Your task to perform on an android device: Clear the shopping cart on target.com. Image 0: 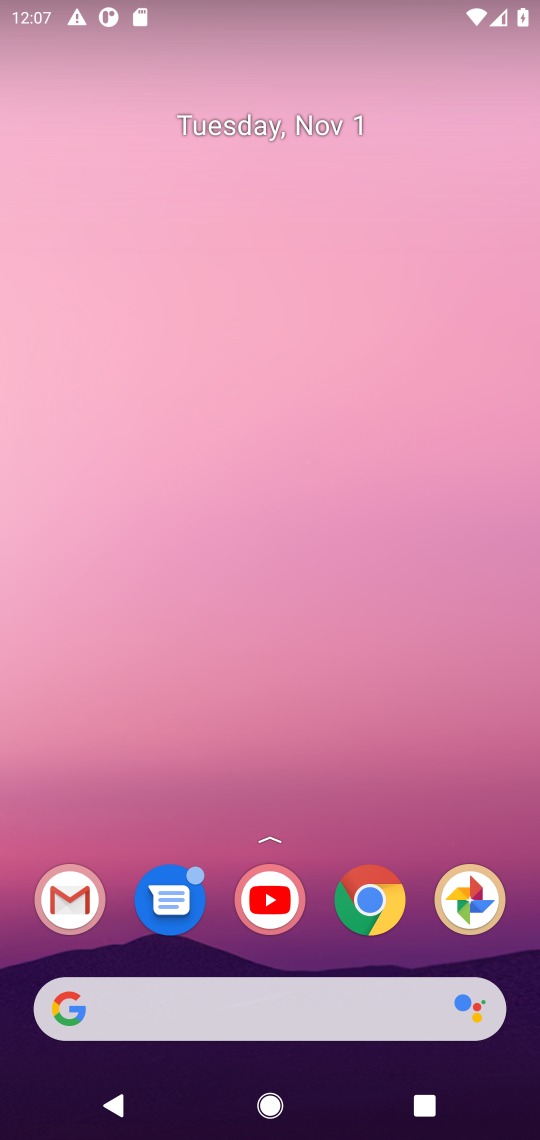
Step 0: click (376, 914)
Your task to perform on an android device: Clear the shopping cart on target.com. Image 1: 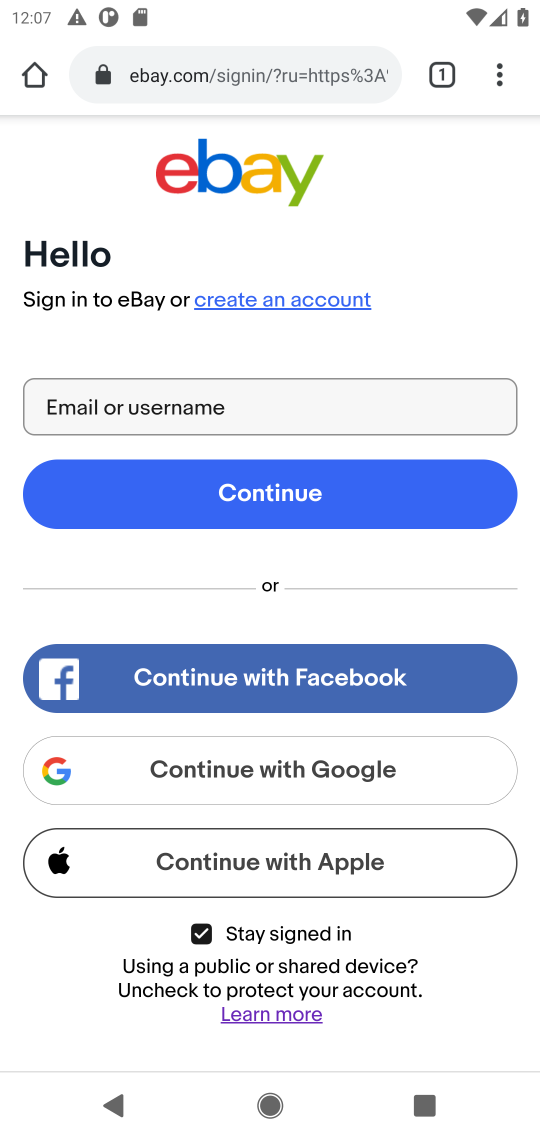
Step 1: click (251, 85)
Your task to perform on an android device: Clear the shopping cart on target.com. Image 2: 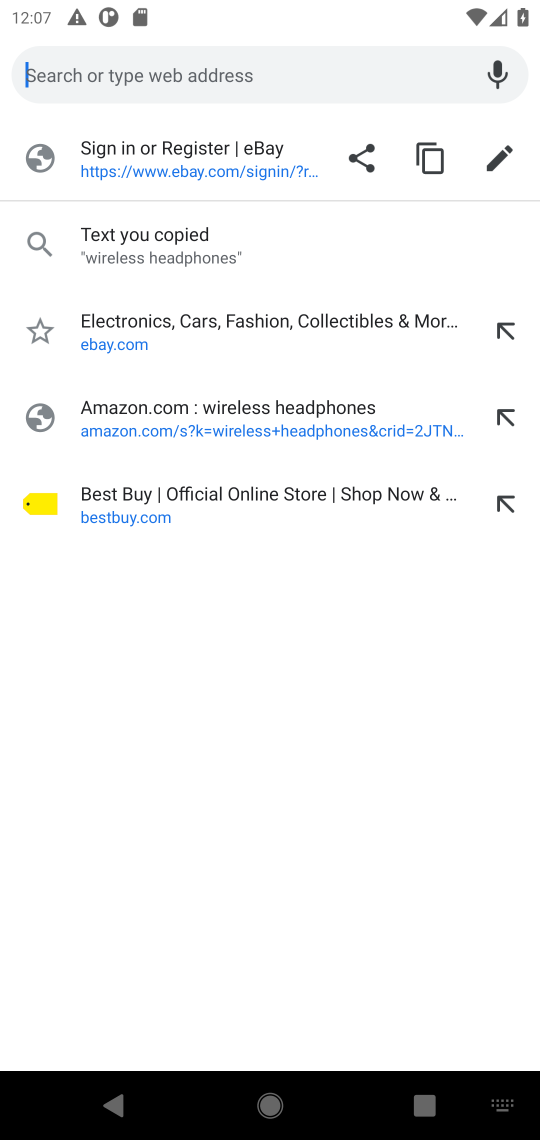
Step 2: type "target.com"
Your task to perform on an android device: Clear the shopping cart on target.com. Image 3: 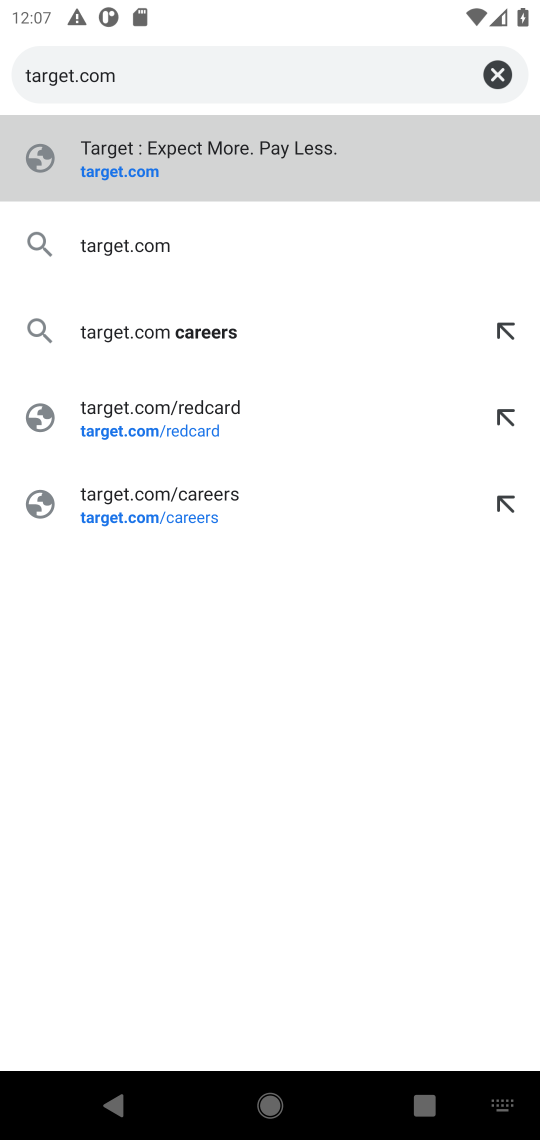
Step 3: press enter
Your task to perform on an android device: Clear the shopping cart on target.com. Image 4: 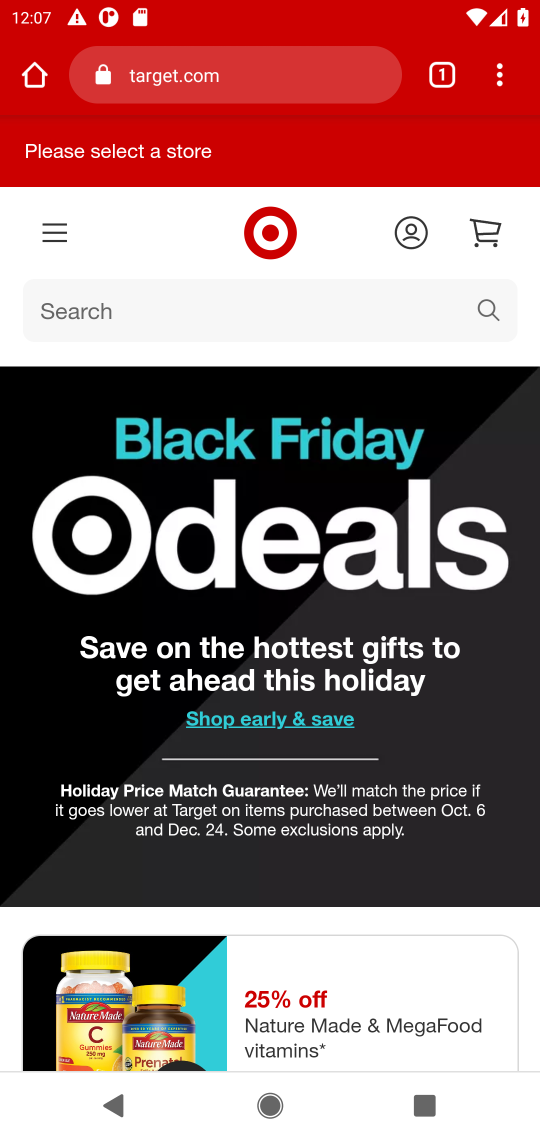
Step 4: drag from (341, 999) to (390, 432)
Your task to perform on an android device: Clear the shopping cart on target.com. Image 5: 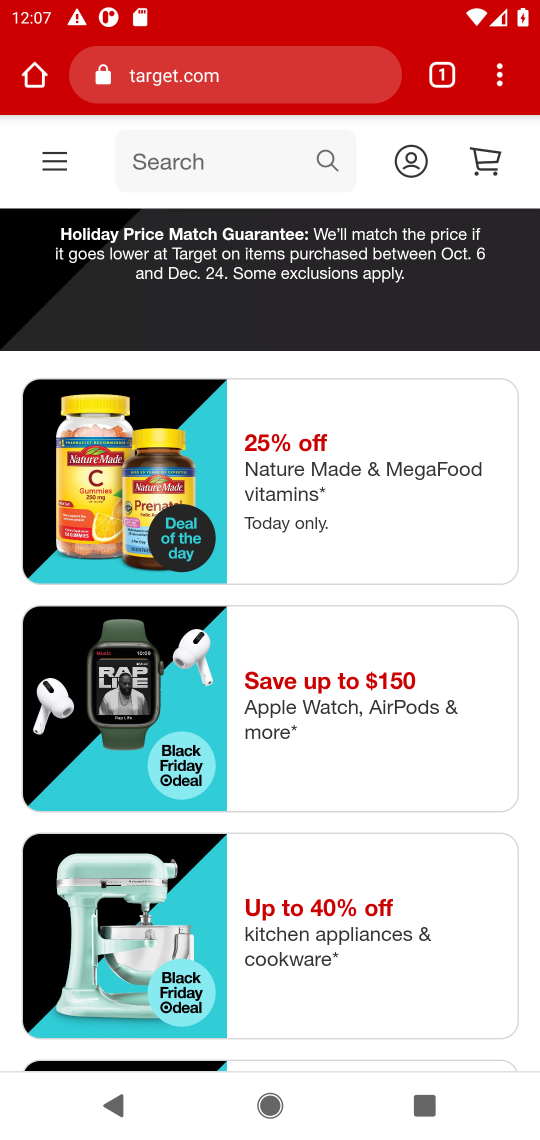
Step 5: click (488, 162)
Your task to perform on an android device: Clear the shopping cart on target.com. Image 6: 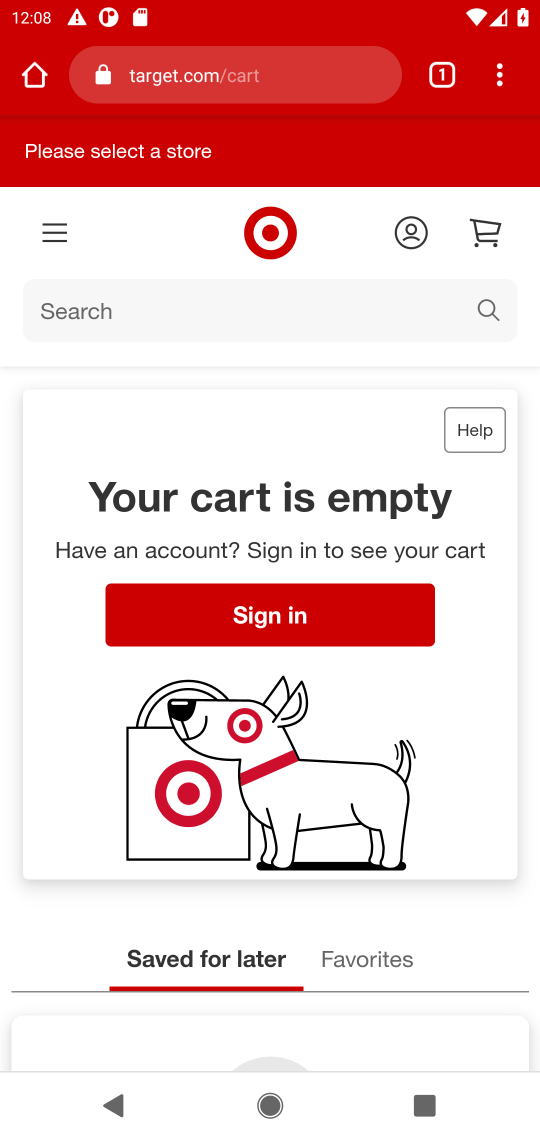
Step 6: task complete